Your task to perform on an android device: turn off location Image 0: 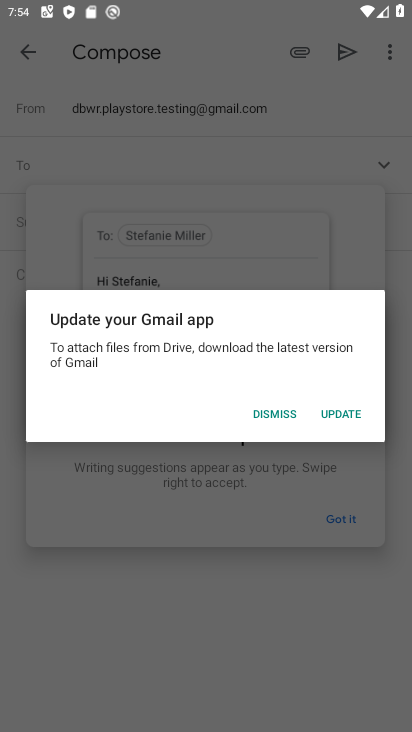
Step 0: press home button
Your task to perform on an android device: turn off location Image 1: 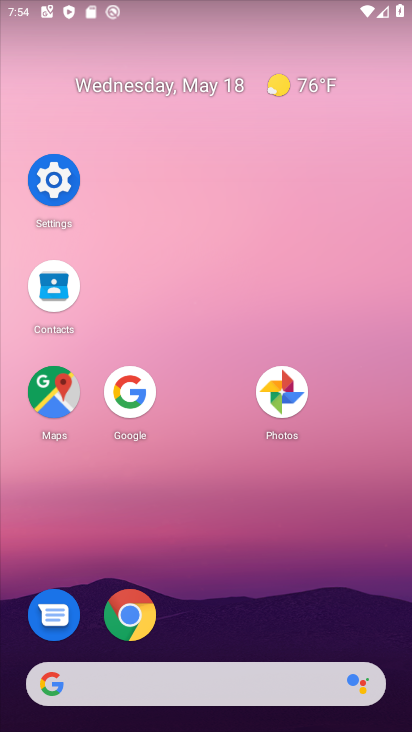
Step 1: click (57, 196)
Your task to perform on an android device: turn off location Image 2: 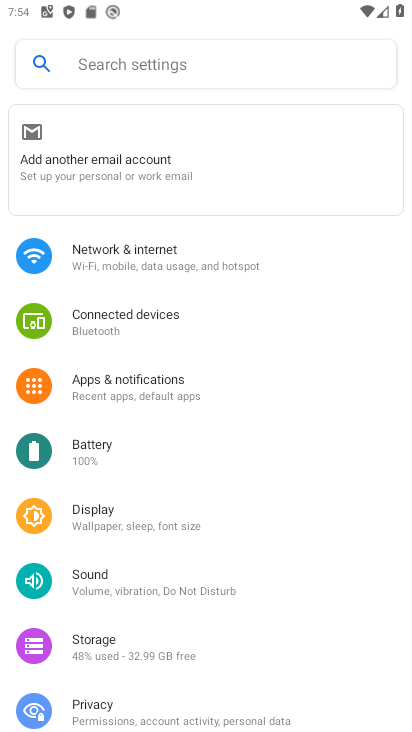
Step 2: drag from (166, 565) to (237, 234)
Your task to perform on an android device: turn off location Image 3: 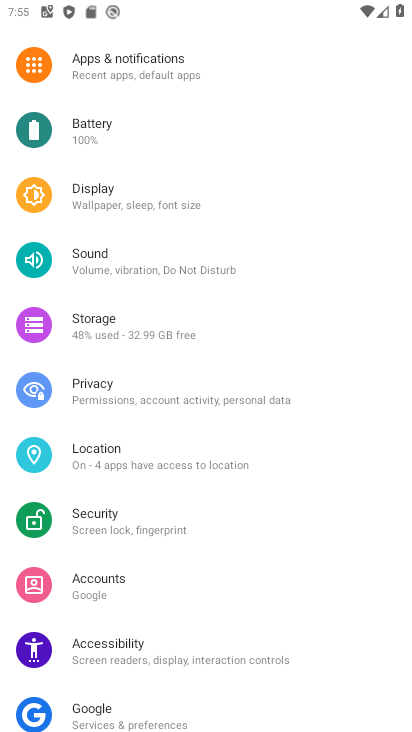
Step 3: click (165, 473)
Your task to perform on an android device: turn off location Image 4: 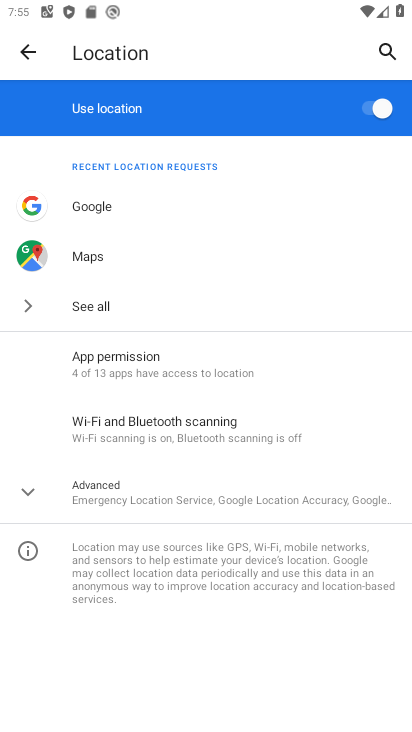
Step 4: task complete